Your task to perform on an android device: Check the weather Image 0: 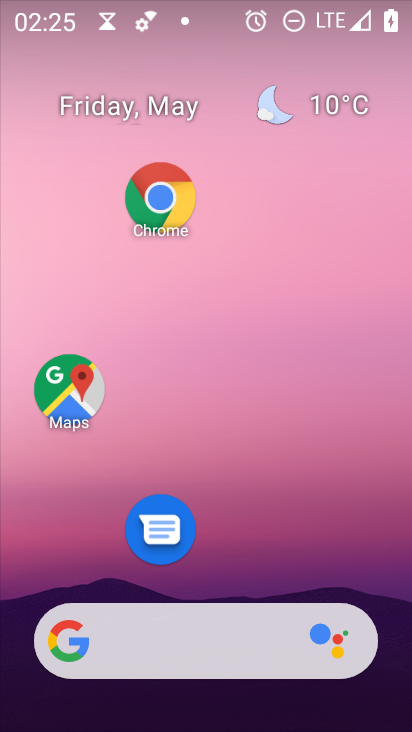
Step 0: drag from (247, 532) to (281, 215)
Your task to perform on an android device: Check the weather Image 1: 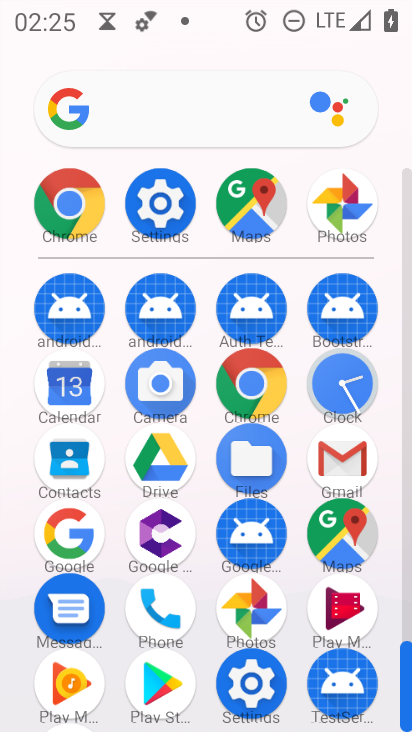
Step 1: click (77, 195)
Your task to perform on an android device: Check the weather Image 2: 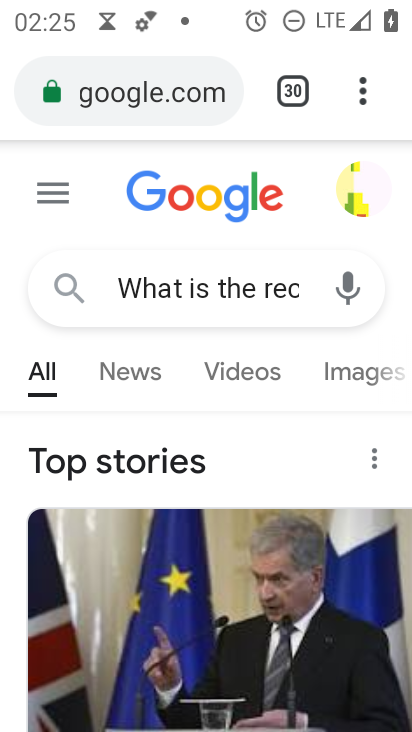
Step 2: click (294, 292)
Your task to perform on an android device: Check the weather Image 3: 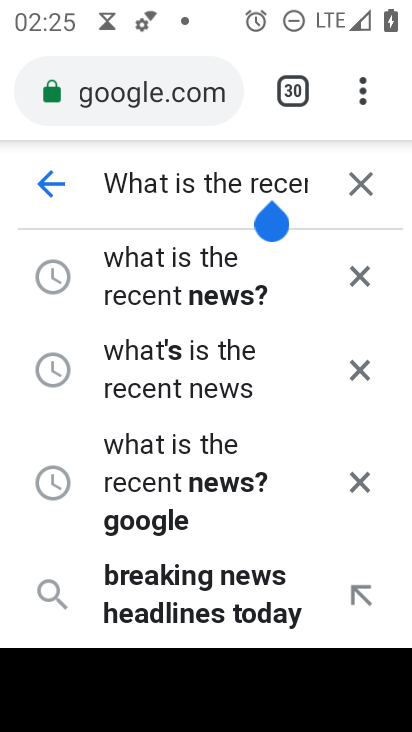
Step 3: click (368, 168)
Your task to perform on an android device: Check the weather Image 4: 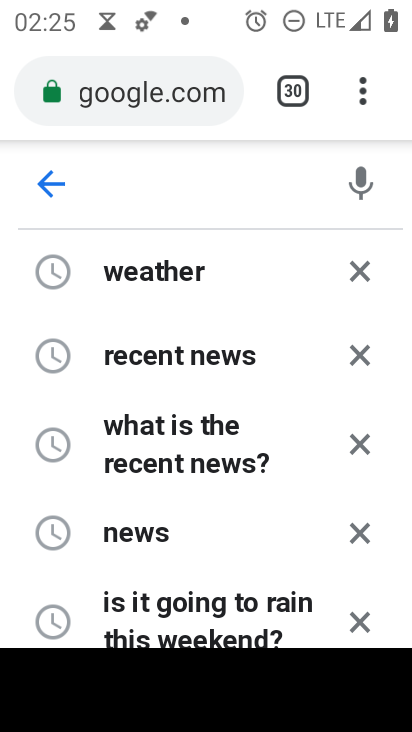
Step 4: click (139, 265)
Your task to perform on an android device: Check the weather Image 5: 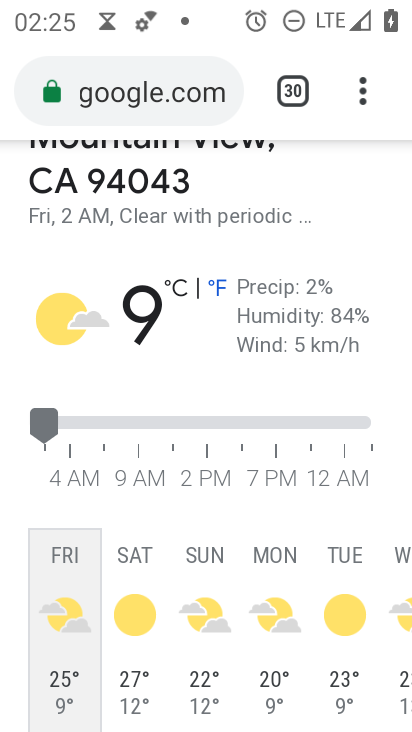
Step 5: task complete